Your task to perform on an android device: turn on notifications settings in the gmail app Image 0: 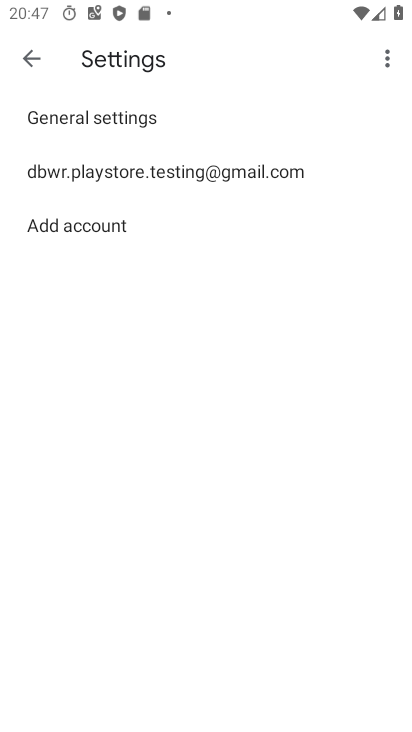
Step 0: press home button
Your task to perform on an android device: turn on notifications settings in the gmail app Image 1: 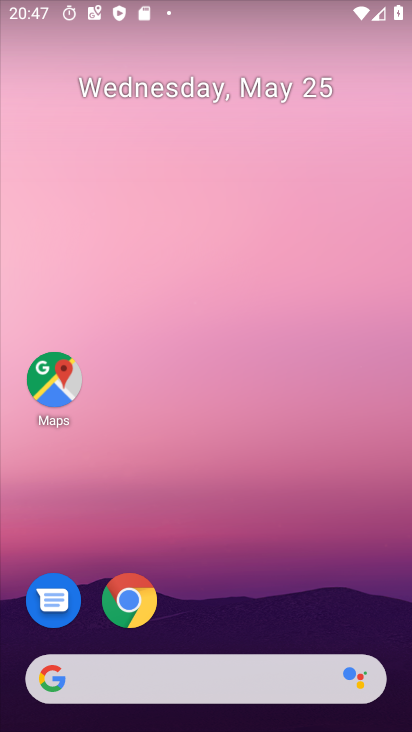
Step 1: drag from (329, 576) to (286, 214)
Your task to perform on an android device: turn on notifications settings in the gmail app Image 2: 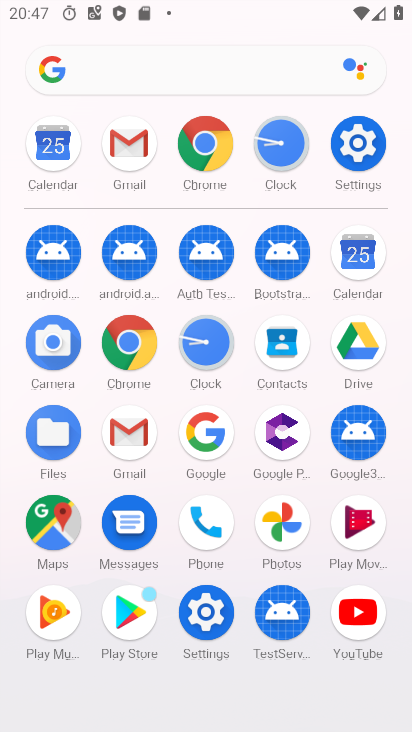
Step 2: click (131, 438)
Your task to perform on an android device: turn on notifications settings in the gmail app Image 3: 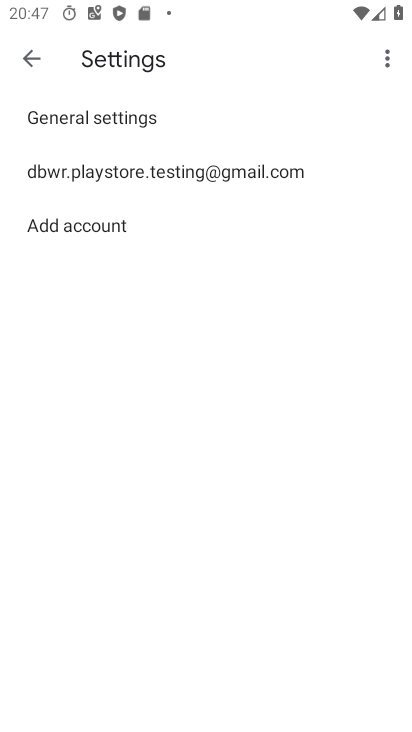
Step 3: click (205, 169)
Your task to perform on an android device: turn on notifications settings in the gmail app Image 4: 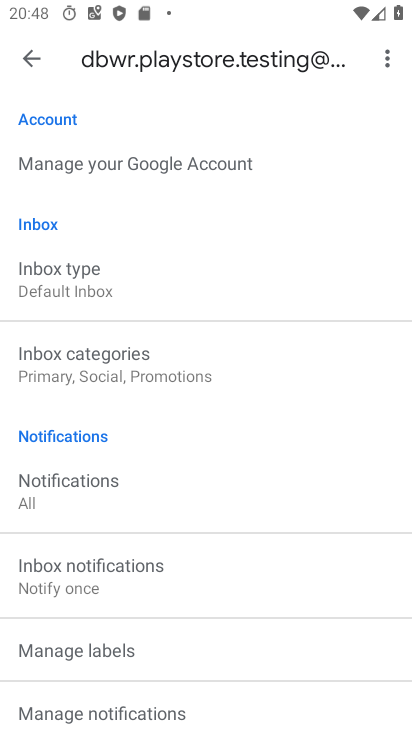
Step 4: task complete